Your task to perform on an android device: open the mobile data screen to see how much data has been used Image 0: 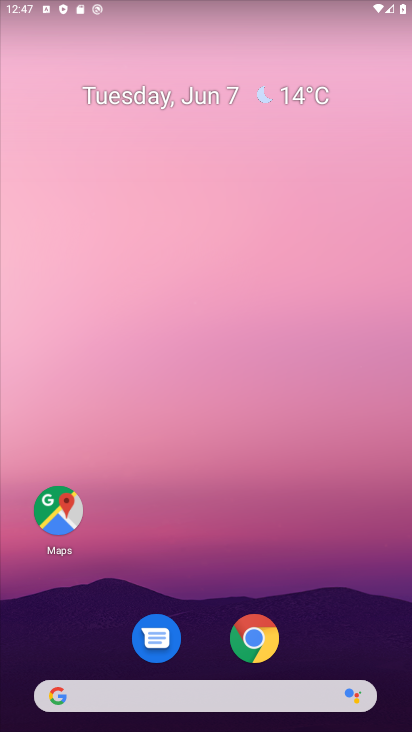
Step 0: drag from (204, 645) to (158, 253)
Your task to perform on an android device: open the mobile data screen to see how much data has been used Image 1: 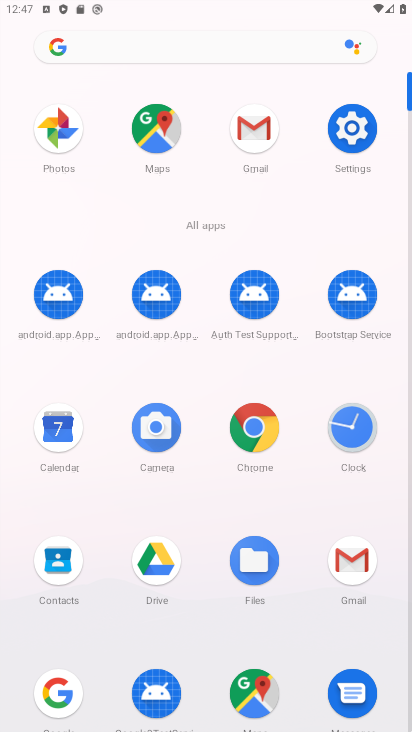
Step 1: click (346, 130)
Your task to perform on an android device: open the mobile data screen to see how much data has been used Image 2: 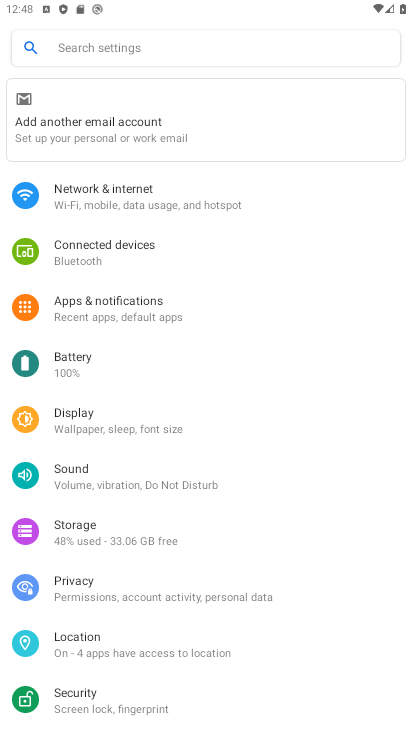
Step 2: click (105, 201)
Your task to perform on an android device: open the mobile data screen to see how much data has been used Image 3: 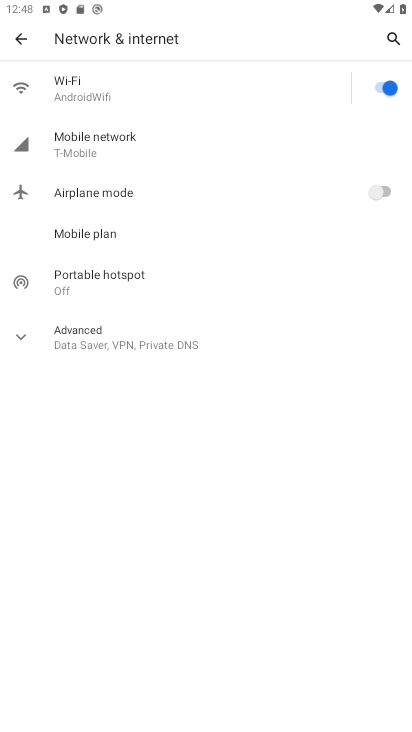
Step 3: click (116, 153)
Your task to perform on an android device: open the mobile data screen to see how much data has been used Image 4: 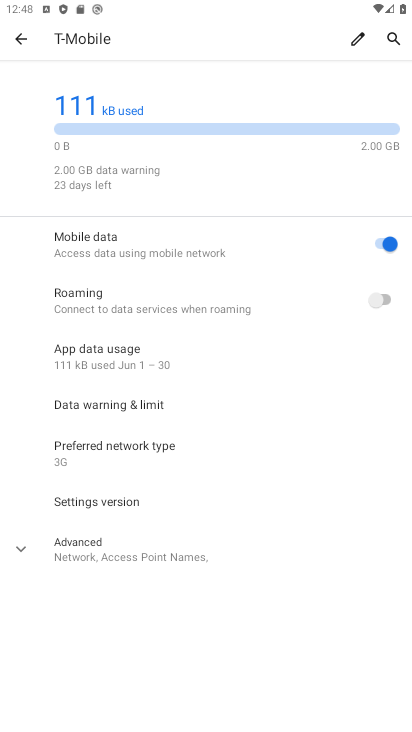
Step 4: task complete